Your task to perform on an android device: change timer sound Image 0: 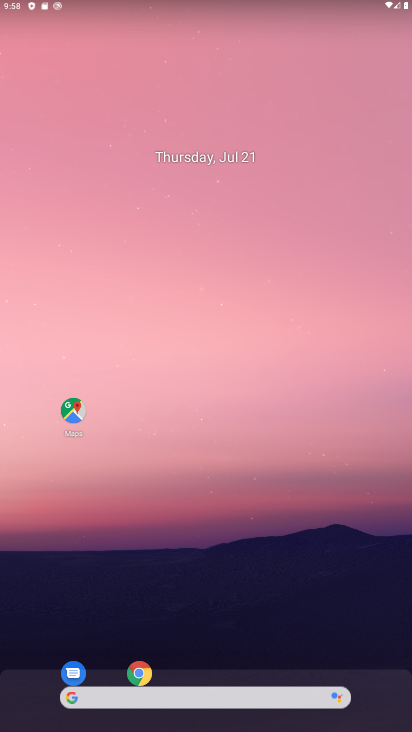
Step 0: drag from (205, 591) to (183, 239)
Your task to perform on an android device: change timer sound Image 1: 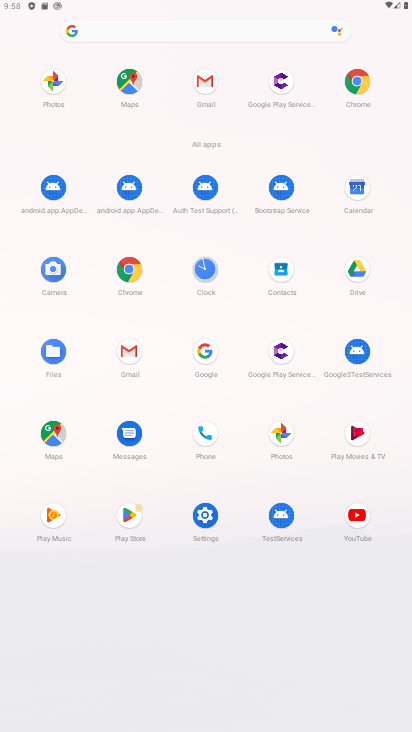
Step 1: click (208, 276)
Your task to perform on an android device: change timer sound Image 2: 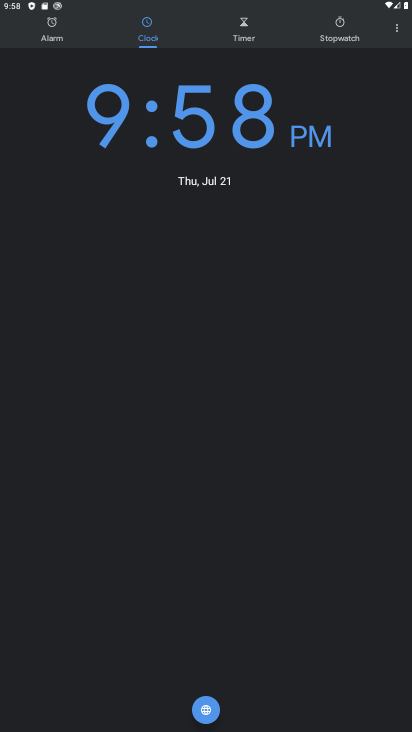
Step 2: click (401, 30)
Your task to perform on an android device: change timer sound Image 3: 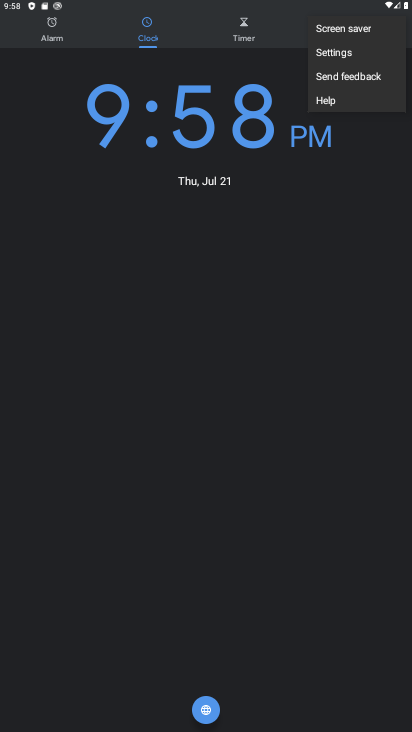
Step 3: click (324, 49)
Your task to perform on an android device: change timer sound Image 4: 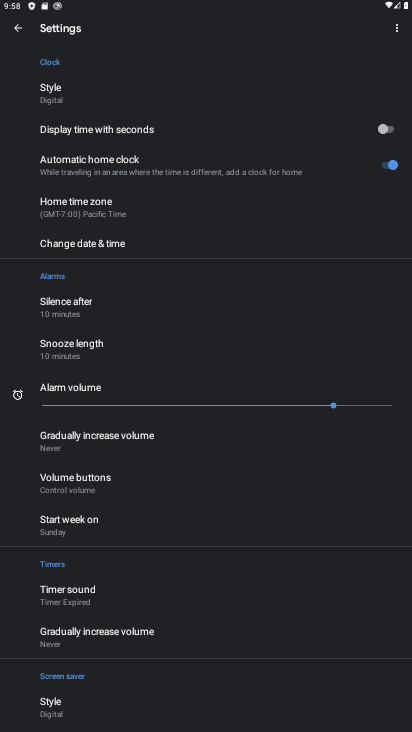
Step 4: click (67, 590)
Your task to perform on an android device: change timer sound Image 5: 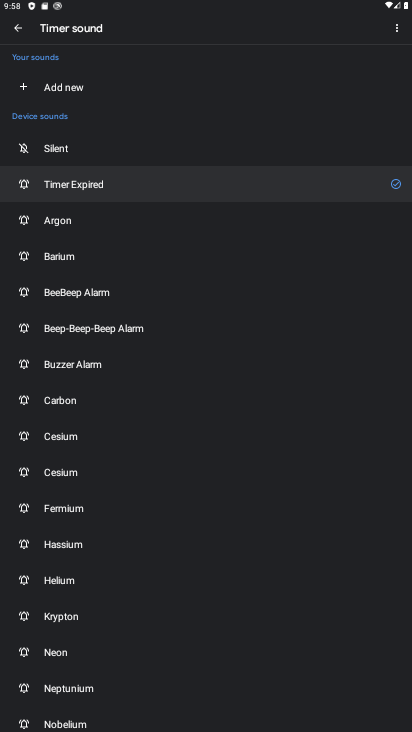
Step 5: click (60, 220)
Your task to perform on an android device: change timer sound Image 6: 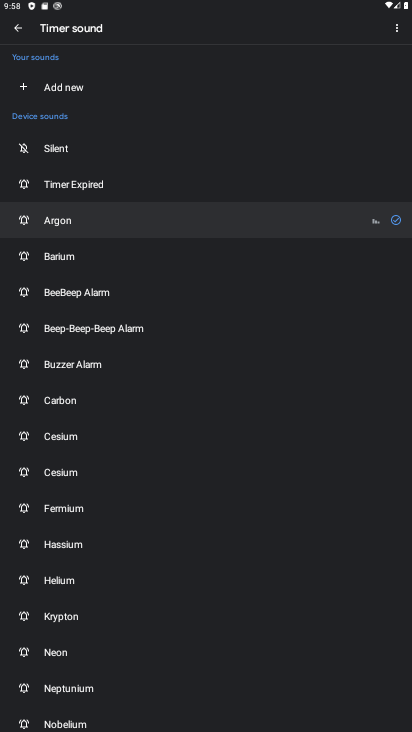
Step 6: task complete